Your task to perform on an android device: see tabs open on other devices in the chrome app Image 0: 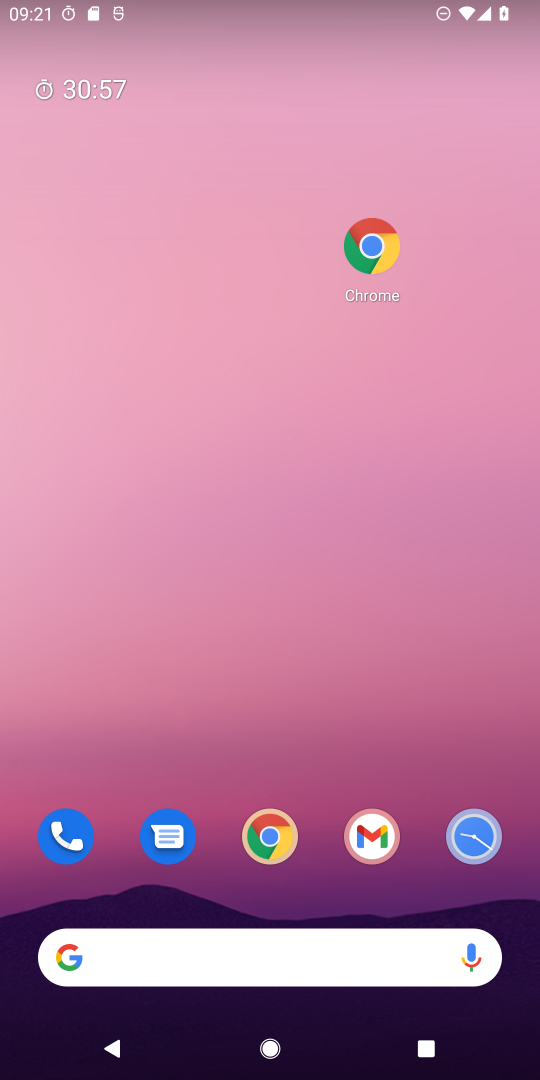
Step 0: drag from (192, 904) to (181, 340)
Your task to perform on an android device: see tabs open on other devices in the chrome app Image 1: 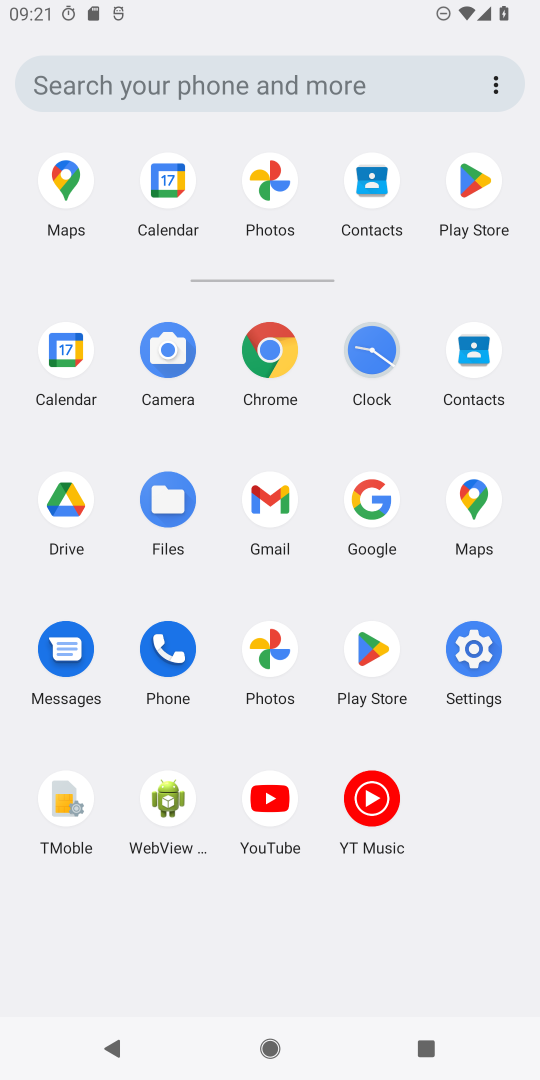
Step 1: click (270, 356)
Your task to perform on an android device: see tabs open on other devices in the chrome app Image 2: 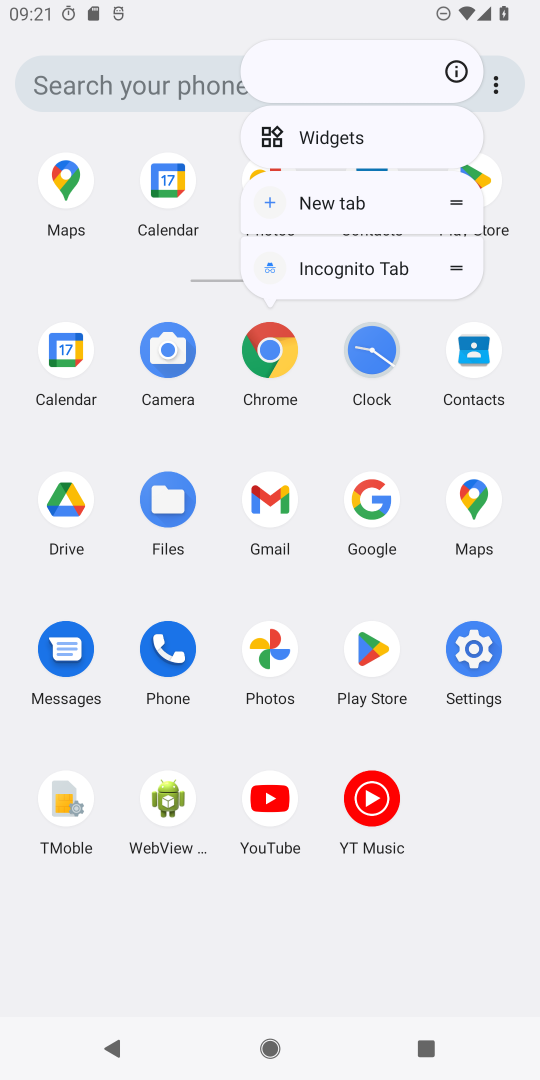
Step 2: click (268, 350)
Your task to perform on an android device: see tabs open on other devices in the chrome app Image 3: 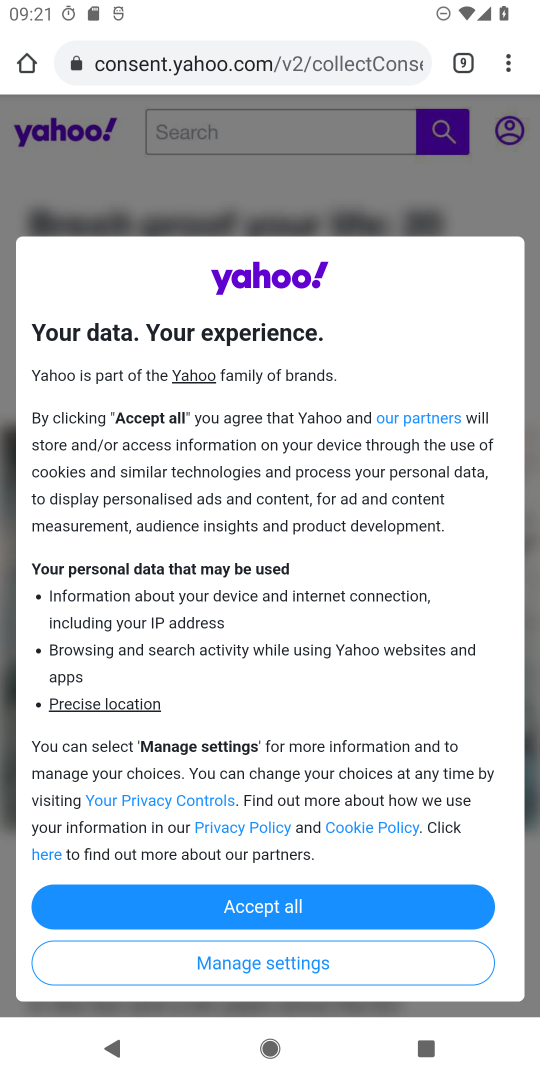
Step 3: click (503, 56)
Your task to perform on an android device: see tabs open on other devices in the chrome app Image 4: 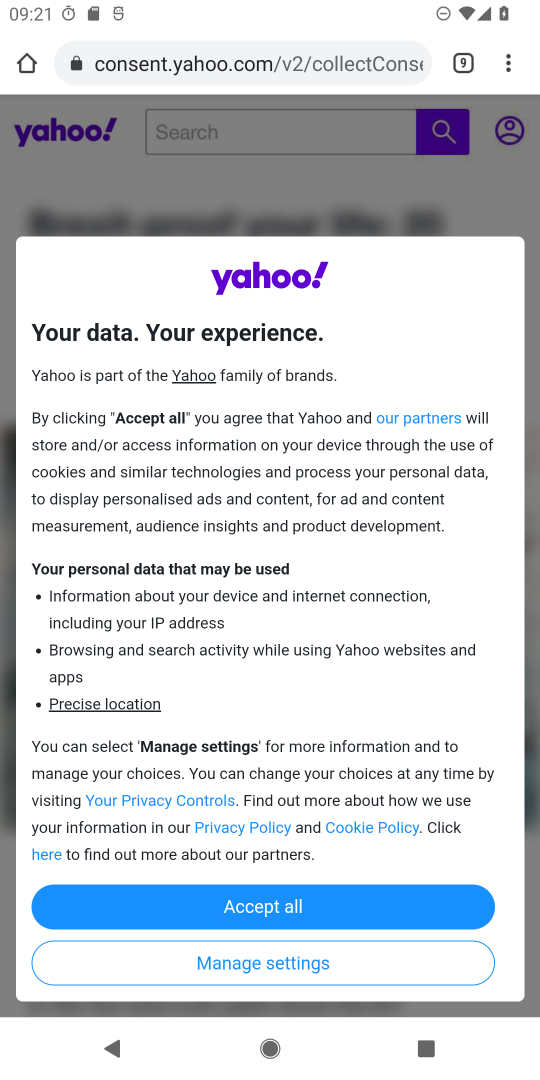
Step 4: click (503, 56)
Your task to perform on an android device: see tabs open on other devices in the chrome app Image 5: 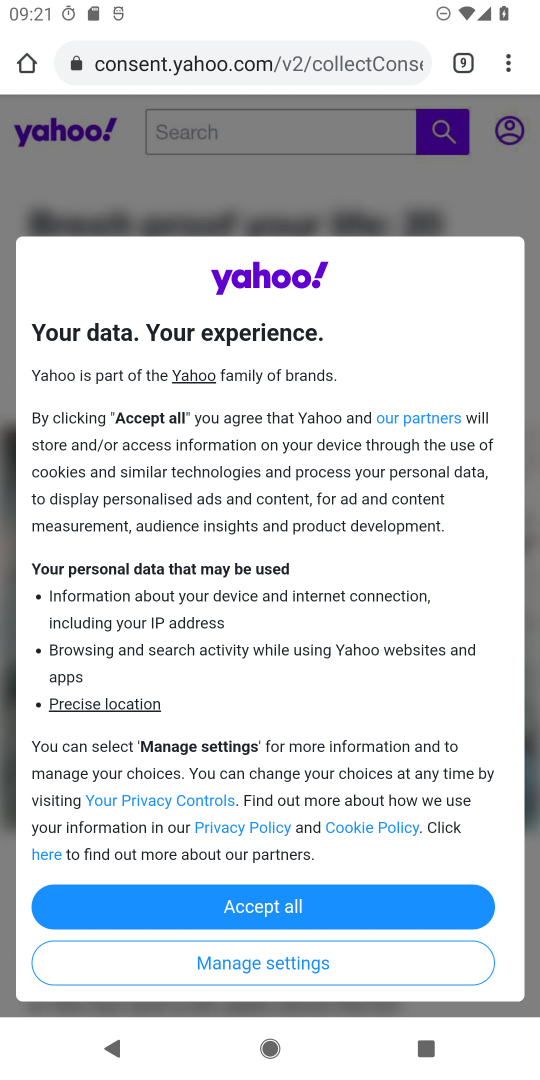
Step 5: click (527, 60)
Your task to perform on an android device: see tabs open on other devices in the chrome app Image 6: 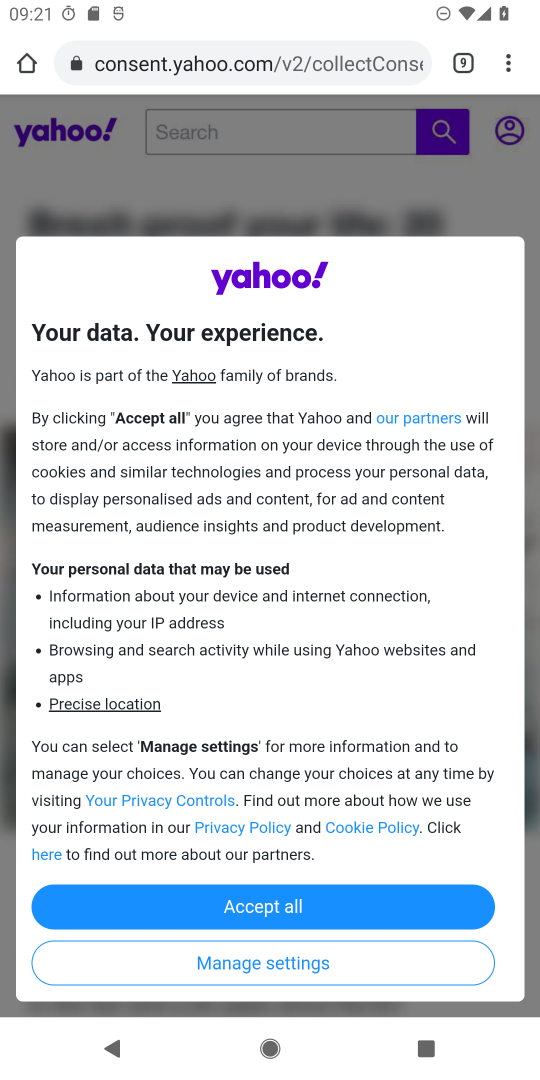
Step 6: click (483, 54)
Your task to perform on an android device: see tabs open on other devices in the chrome app Image 7: 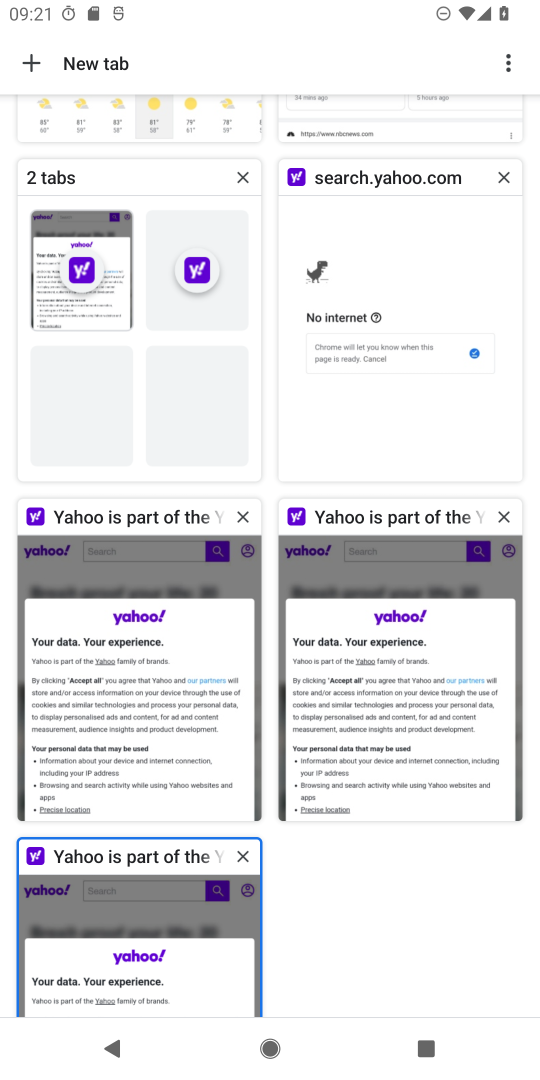
Step 7: click (24, 56)
Your task to perform on an android device: see tabs open on other devices in the chrome app Image 8: 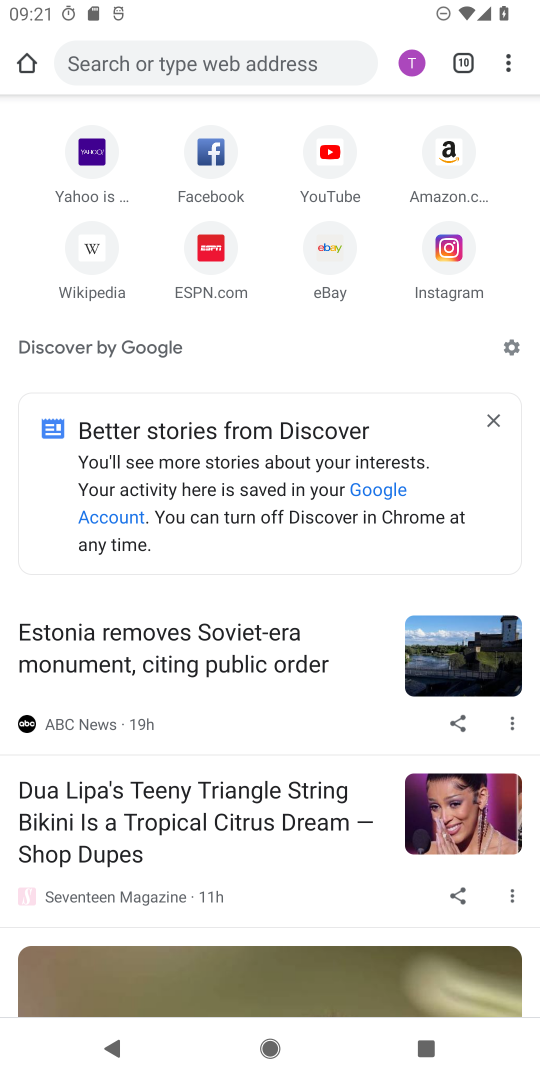
Step 8: click (517, 61)
Your task to perform on an android device: see tabs open on other devices in the chrome app Image 9: 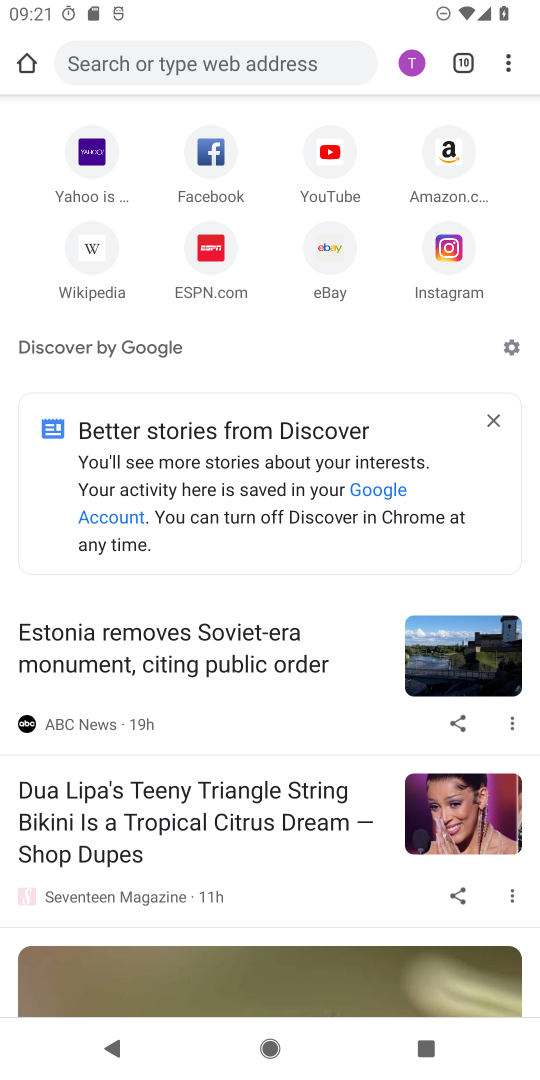
Step 9: click (494, 54)
Your task to perform on an android device: see tabs open on other devices in the chrome app Image 10: 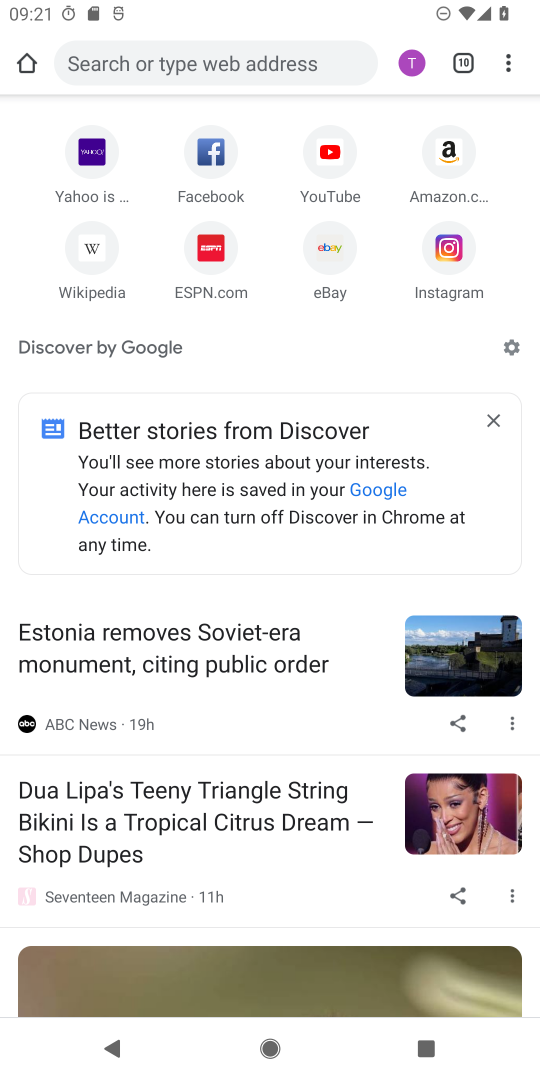
Step 10: click (499, 56)
Your task to perform on an android device: see tabs open on other devices in the chrome app Image 11: 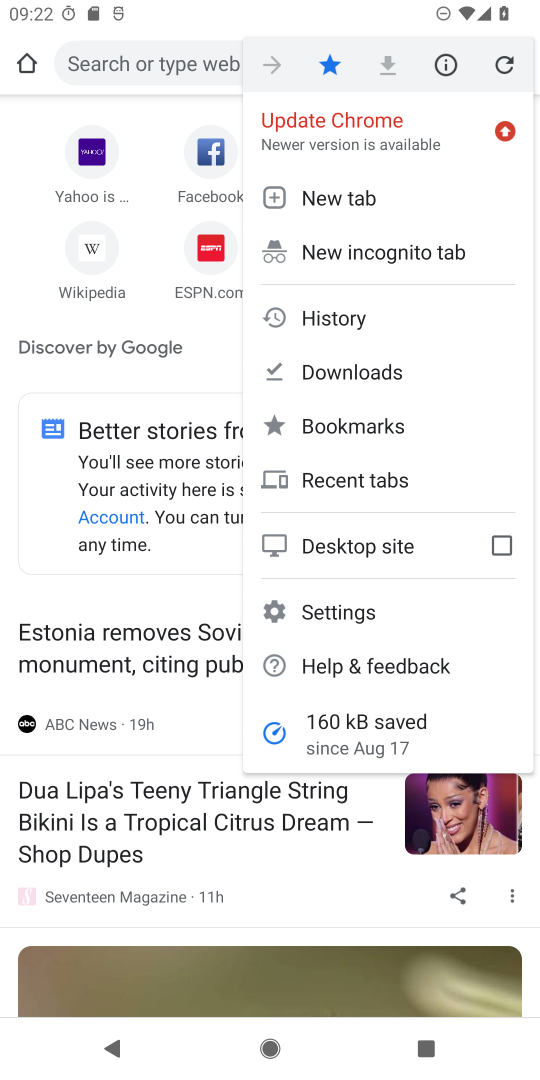
Step 11: click (345, 319)
Your task to perform on an android device: see tabs open on other devices in the chrome app Image 12: 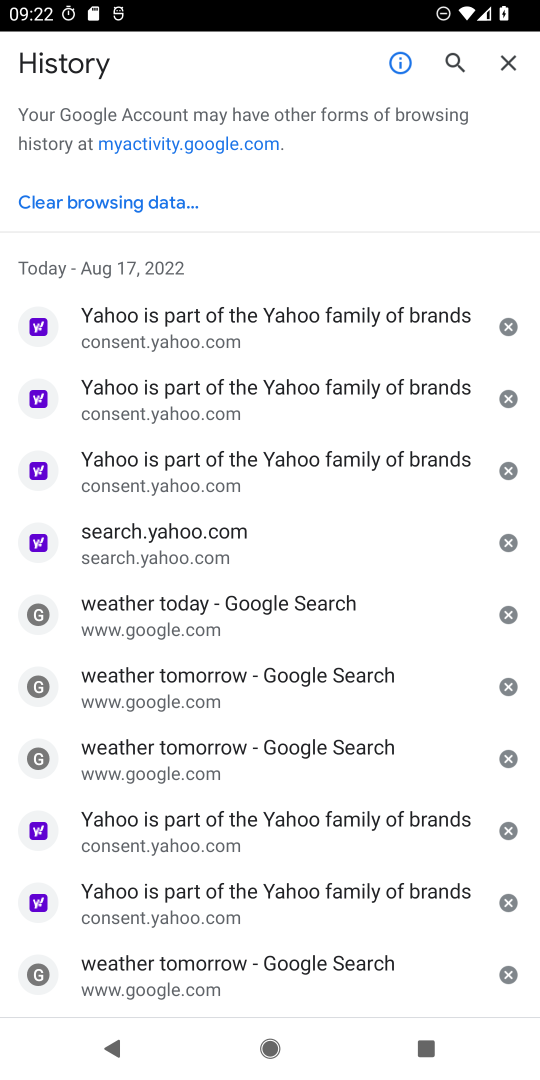
Step 12: task complete